Your task to perform on an android device: open a new tab in the chrome app Image 0: 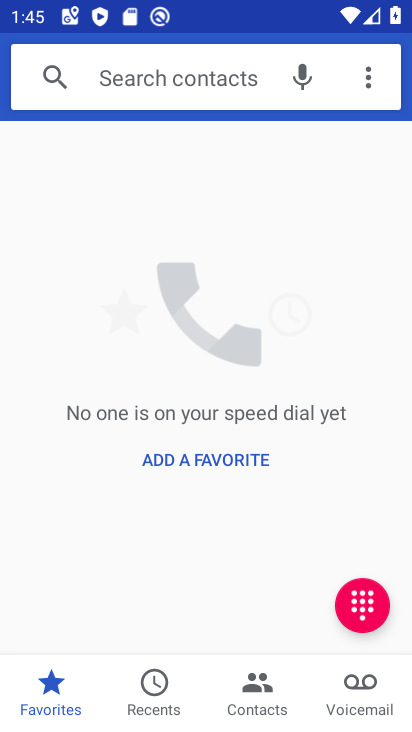
Step 0: press home button
Your task to perform on an android device: open a new tab in the chrome app Image 1: 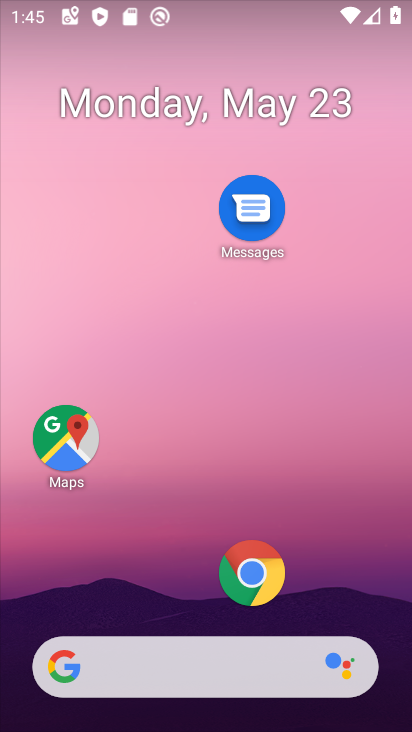
Step 1: drag from (132, 588) to (228, 57)
Your task to perform on an android device: open a new tab in the chrome app Image 2: 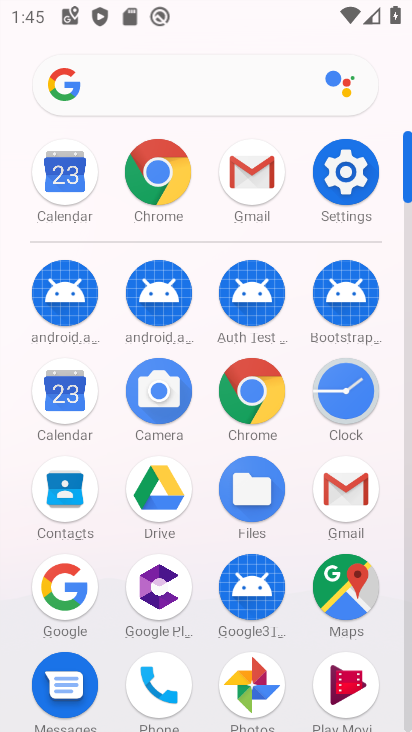
Step 2: click (136, 183)
Your task to perform on an android device: open a new tab in the chrome app Image 3: 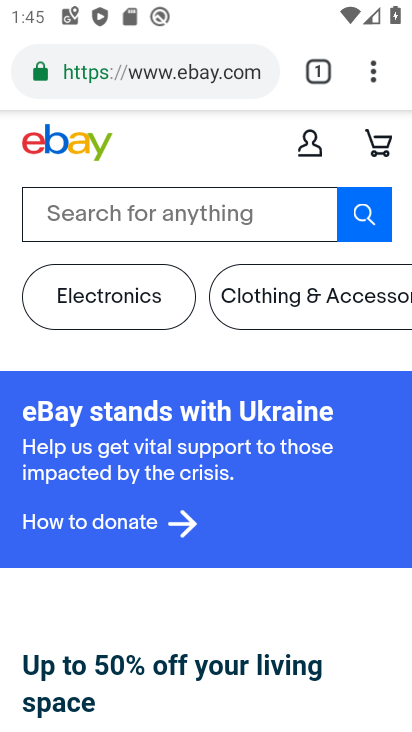
Step 3: click (315, 84)
Your task to perform on an android device: open a new tab in the chrome app Image 4: 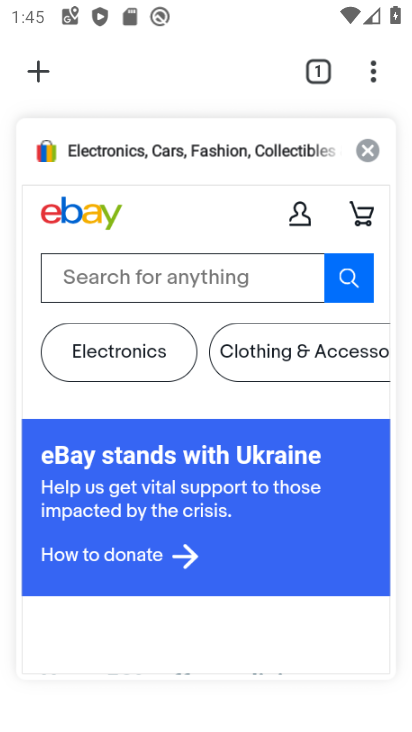
Step 4: click (43, 66)
Your task to perform on an android device: open a new tab in the chrome app Image 5: 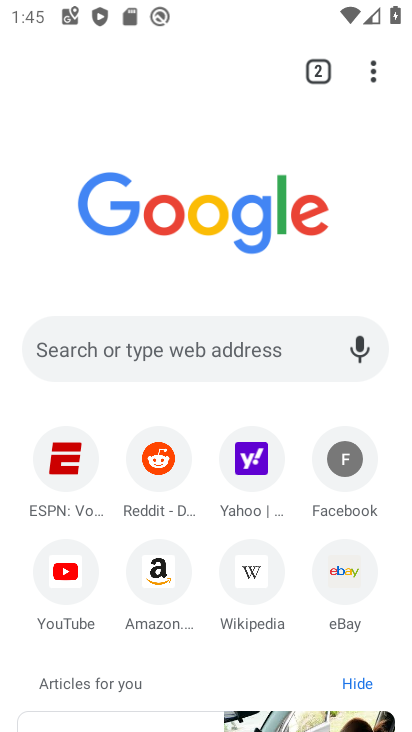
Step 5: task complete